Your task to perform on an android device: open device folders in google photos Image 0: 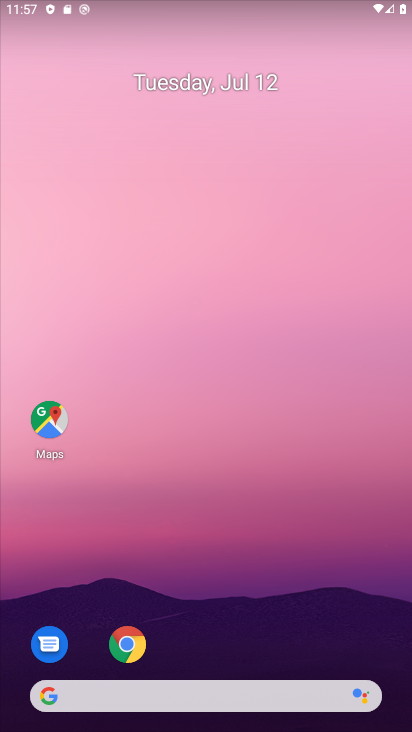
Step 0: drag from (241, 609) to (271, 123)
Your task to perform on an android device: open device folders in google photos Image 1: 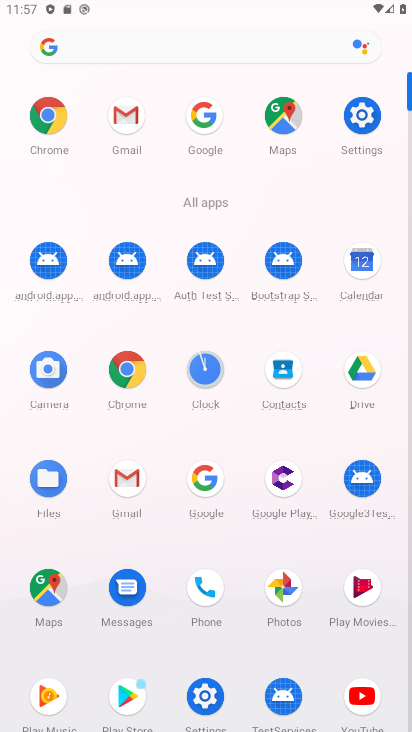
Step 1: click (281, 586)
Your task to perform on an android device: open device folders in google photos Image 2: 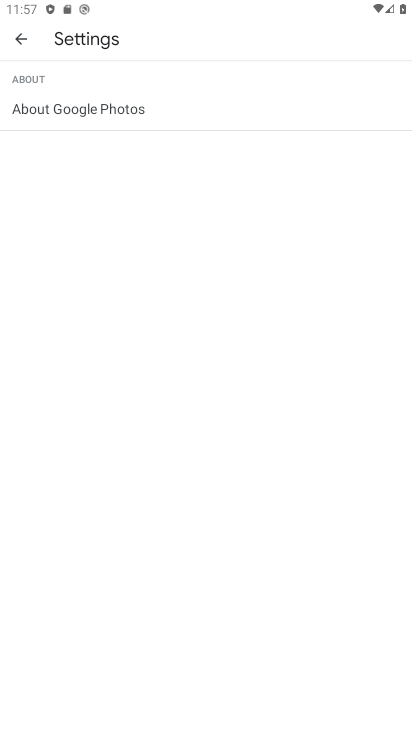
Step 2: press back button
Your task to perform on an android device: open device folders in google photos Image 3: 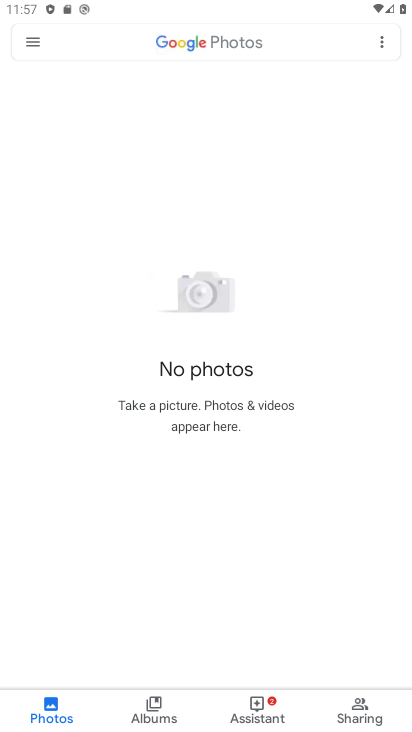
Step 3: click (32, 37)
Your task to perform on an android device: open device folders in google photos Image 4: 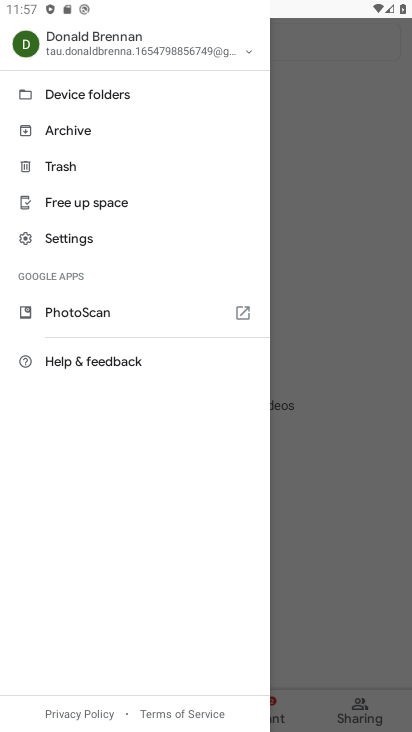
Step 4: click (90, 99)
Your task to perform on an android device: open device folders in google photos Image 5: 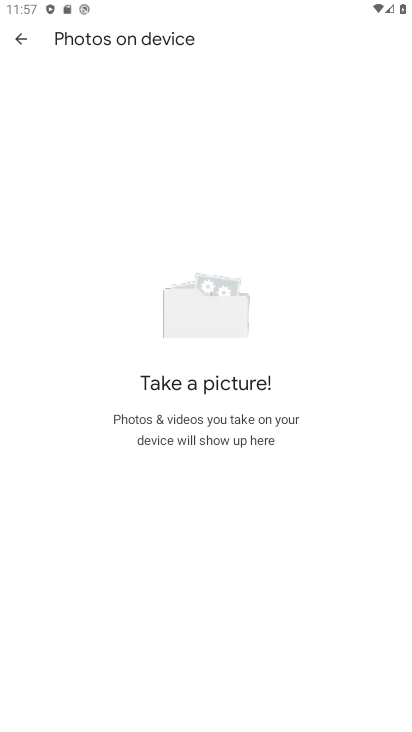
Step 5: task complete